Your task to perform on an android device: toggle location history Image 0: 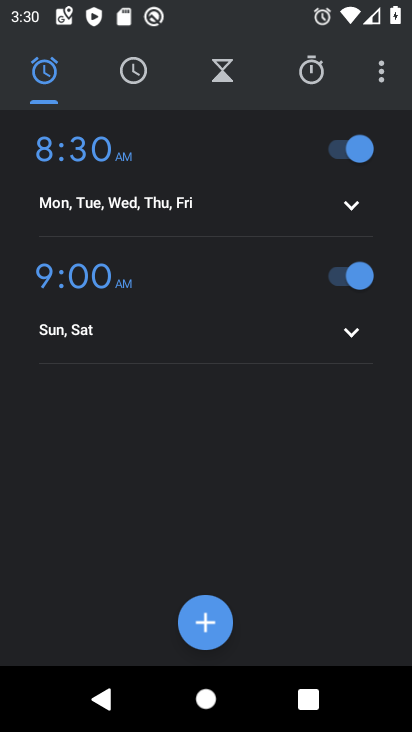
Step 0: press home button
Your task to perform on an android device: toggle location history Image 1: 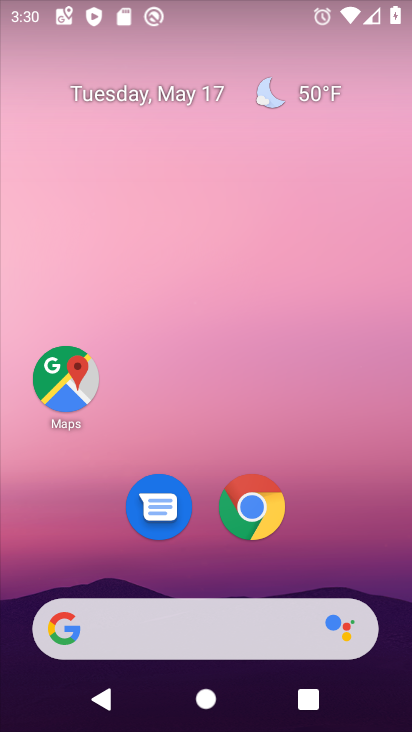
Step 1: drag from (338, 511) to (188, 42)
Your task to perform on an android device: toggle location history Image 2: 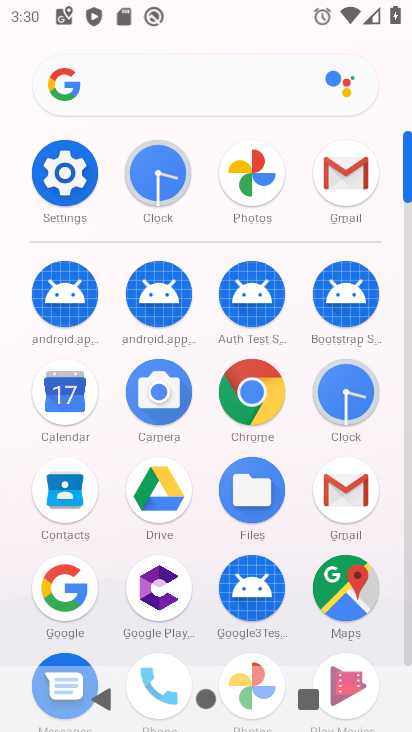
Step 2: click (67, 182)
Your task to perform on an android device: toggle location history Image 3: 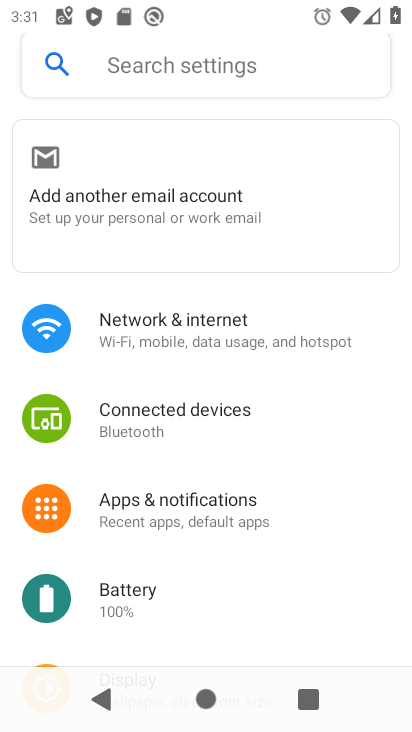
Step 3: drag from (243, 559) to (244, 199)
Your task to perform on an android device: toggle location history Image 4: 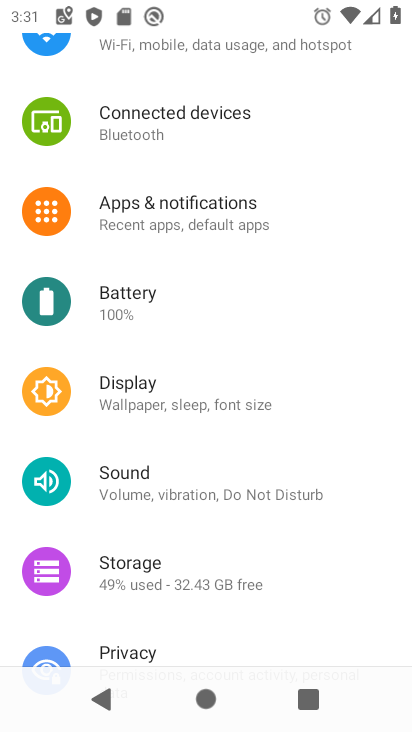
Step 4: drag from (281, 572) to (228, 247)
Your task to perform on an android device: toggle location history Image 5: 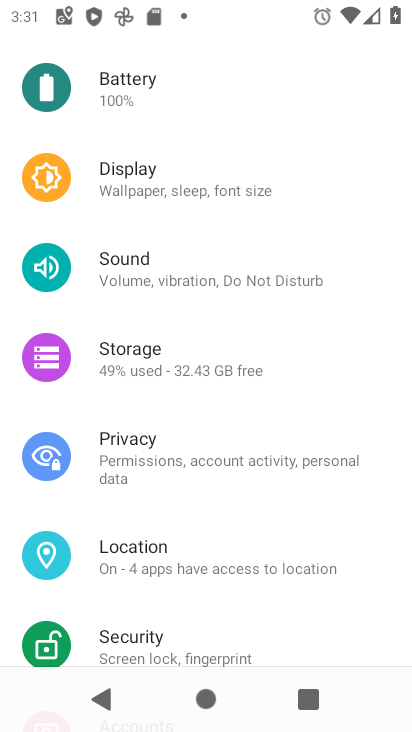
Step 5: click (228, 545)
Your task to perform on an android device: toggle location history Image 6: 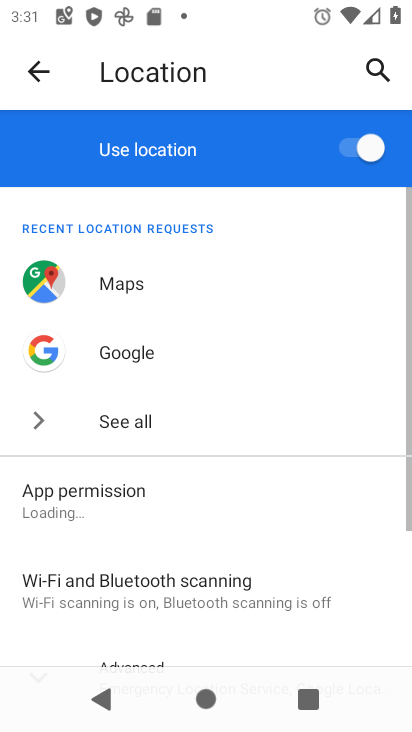
Step 6: drag from (204, 557) to (210, 216)
Your task to perform on an android device: toggle location history Image 7: 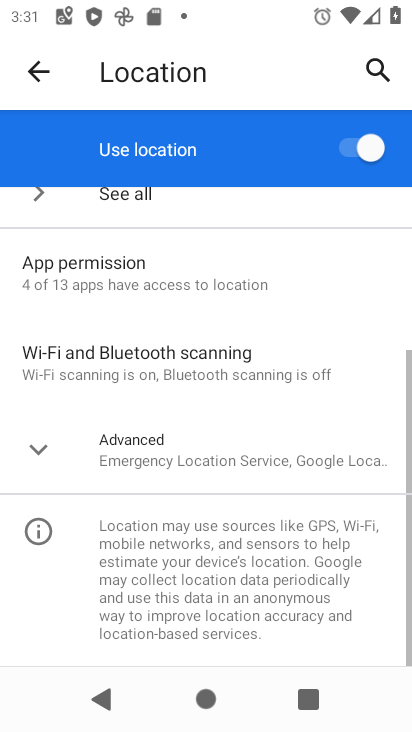
Step 7: drag from (249, 505) to (239, 312)
Your task to perform on an android device: toggle location history Image 8: 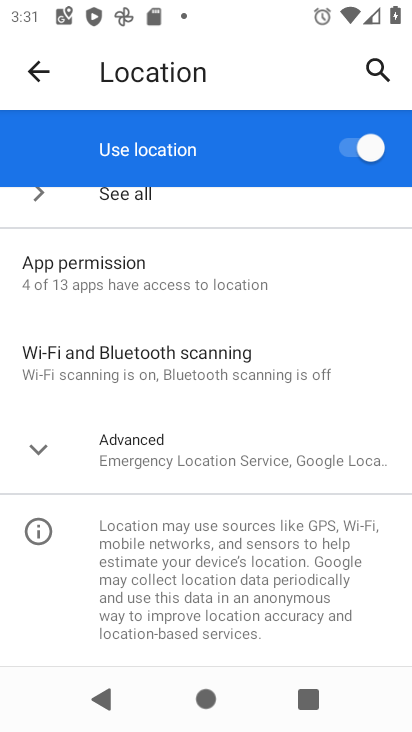
Step 8: click (208, 460)
Your task to perform on an android device: toggle location history Image 9: 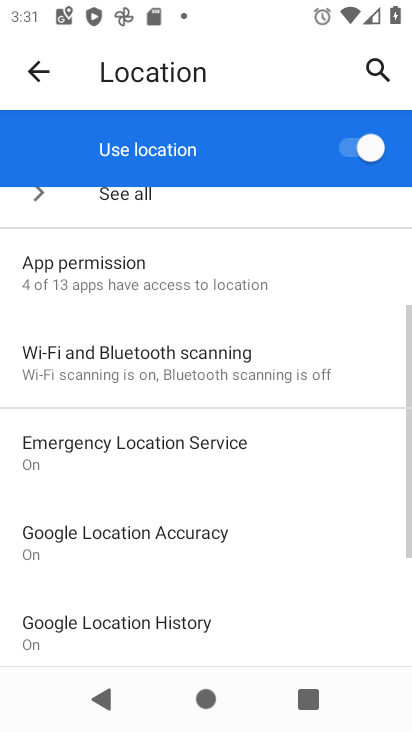
Step 9: click (233, 619)
Your task to perform on an android device: toggle location history Image 10: 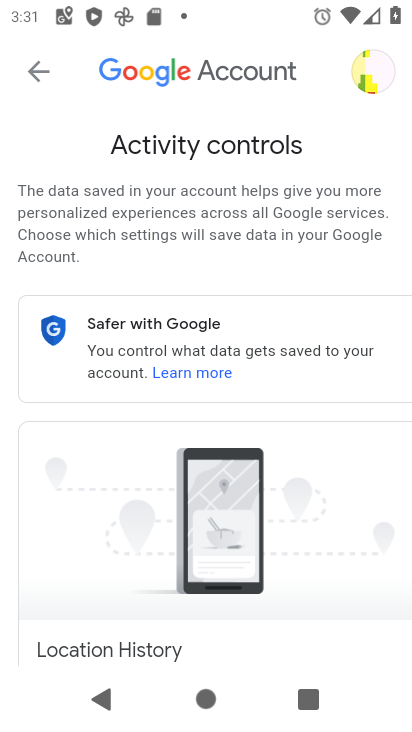
Step 10: drag from (346, 604) to (281, 190)
Your task to perform on an android device: toggle location history Image 11: 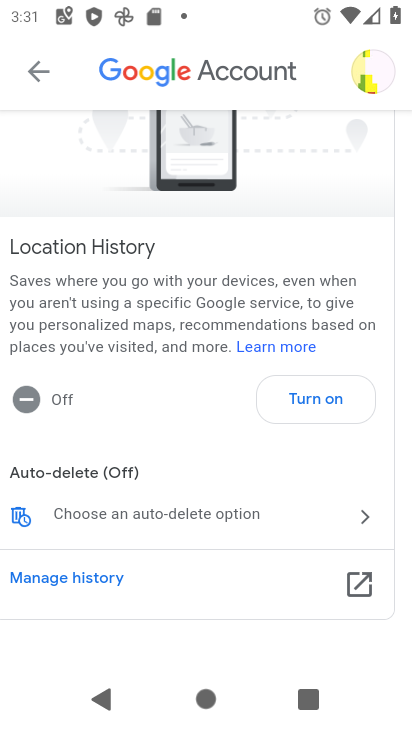
Step 11: click (323, 406)
Your task to perform on an android device: toggle location history Image 12: 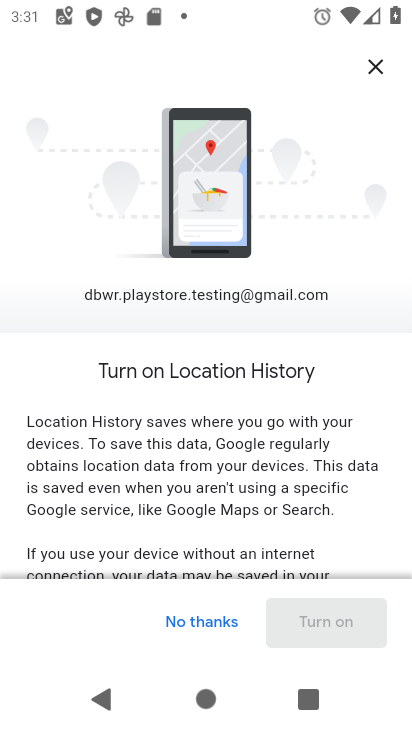
Step 12: drag from (303, 537) to (284, 91)
Your task to perform on an android device: toggle location history Image 13: 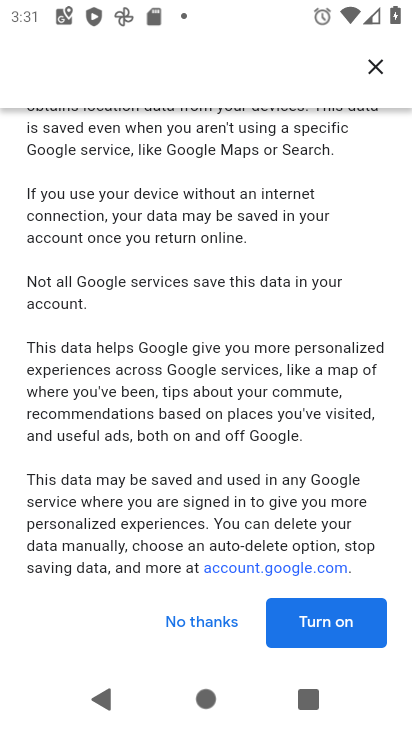
Step 13: drag from (268, 521) to (276, 116)
Your task to perform on an android device: toggle location history Image 14: 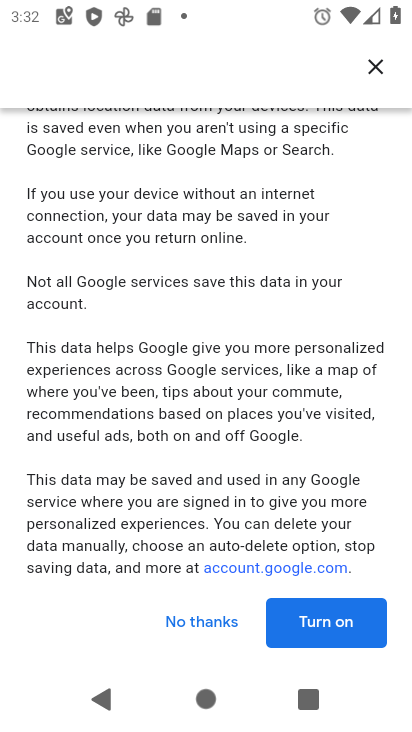
Step 14: click (330, 620)
Your task to perform on an android device: toggle location history Image 15: 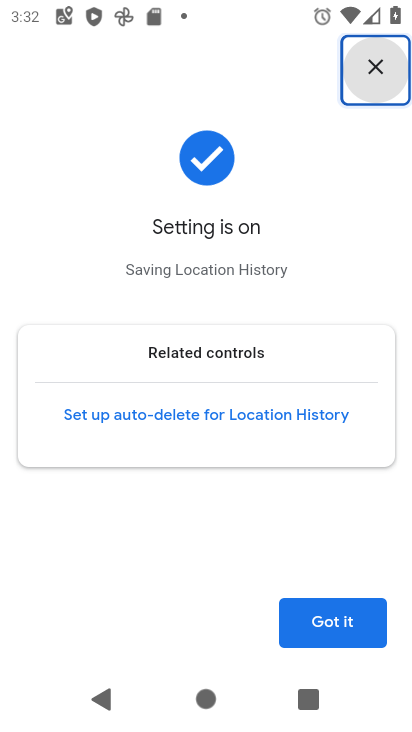
Step 15: click (348, 616)
Your task to perform on an android device: toggle location history Image 16: 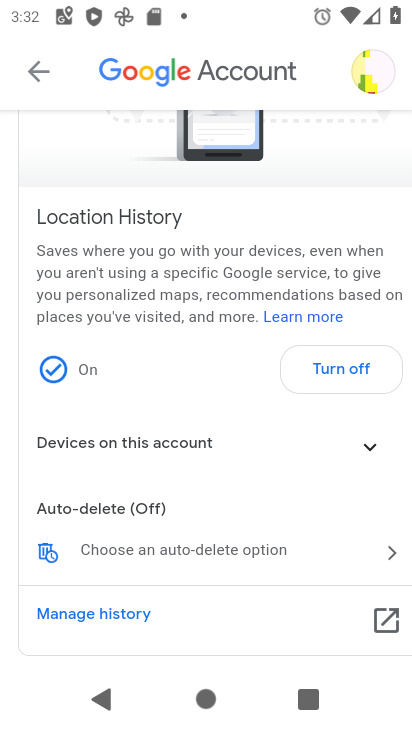
Step 16: task complete